Your task to perform on an android device: Open ESPN.com Image 0: 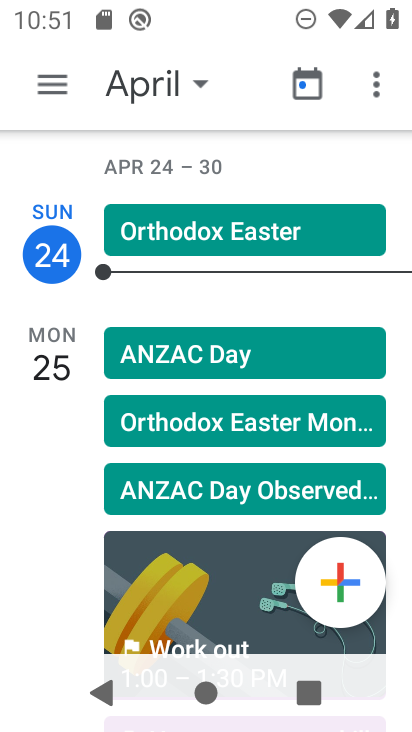
Step 0: press home button
Your task to perform on an android device: Open ESPN.com Image 1: 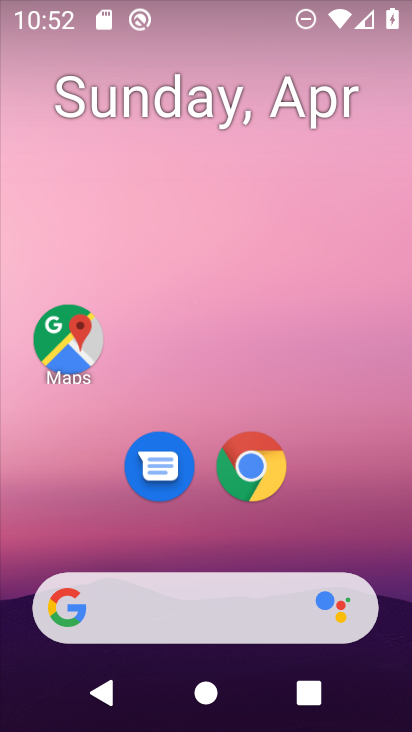
Step 1: drag from (353, 496) to (372, 80)
Your task to perform on an android device: Open ESPN.com Image 2: 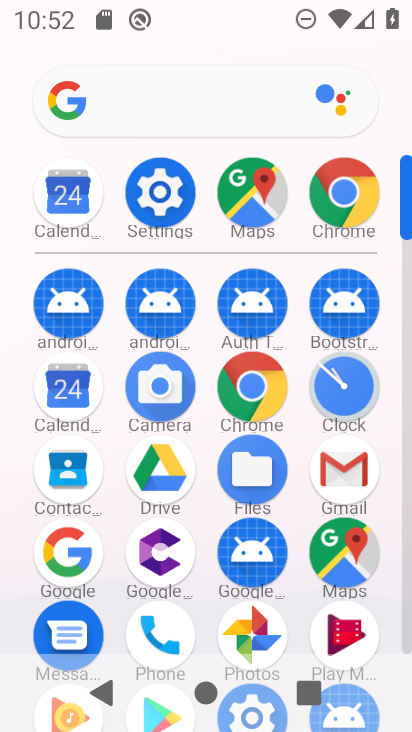
Step 2: click (350, 211)
Your task to perform on an android device: Open ESPN.com Image 3: 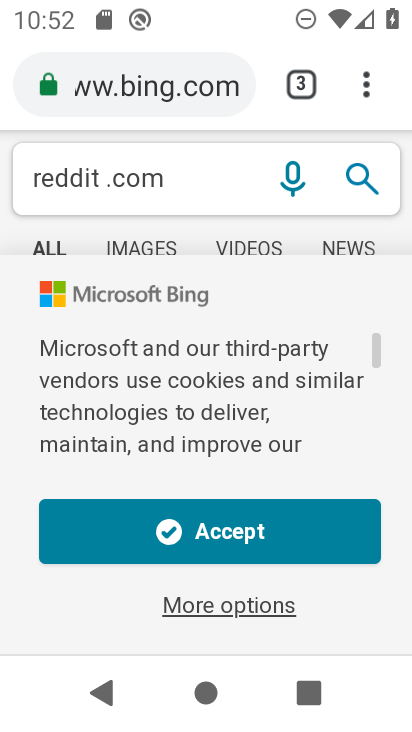
Step 3: click (206, 86)
Your task to perform on an android device: Open ESPN.com Image 4: 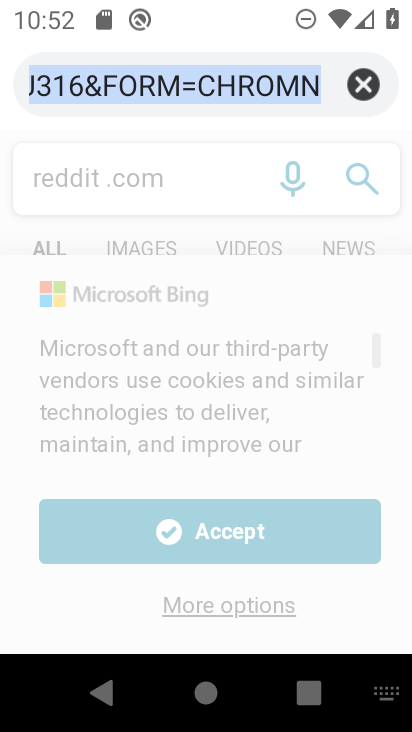
Step 4: click (362, 79)
Your task to perform on an android device: Open ESPN.com Image 5: 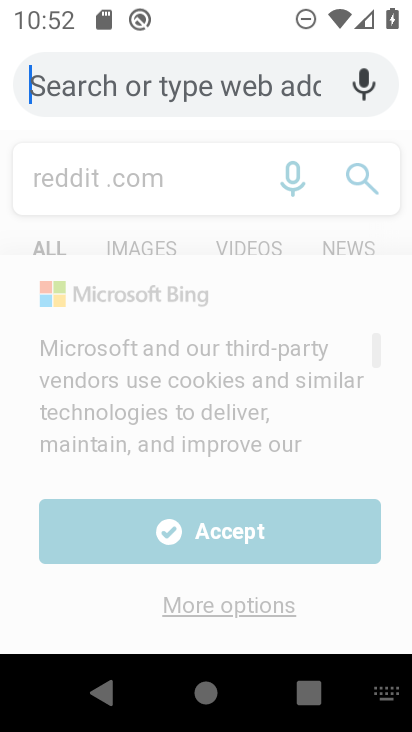
Step 5: click (239, 85)
Your task to perform on an android device: Open ESPN.com Image 6: 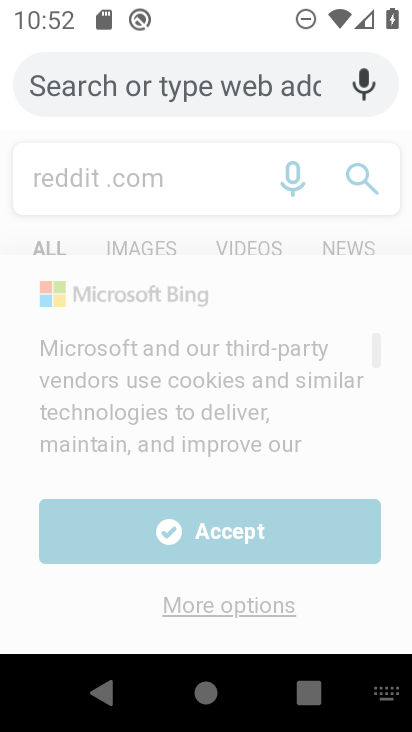
Step 6: type "espn.com"
Your task to perform on an android device: Open ESPN.com Image 7: 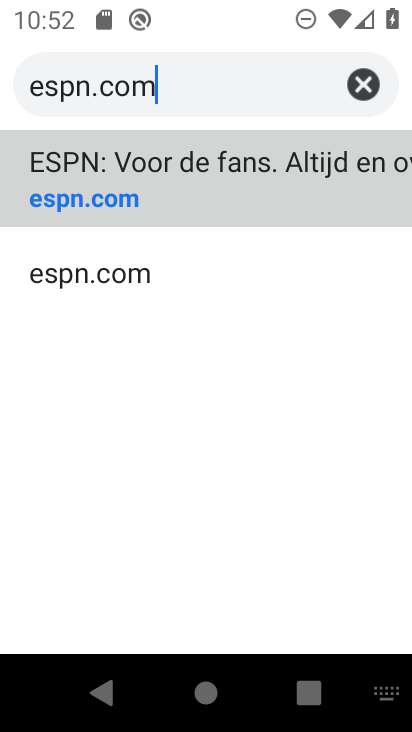
Step 7: click (249, 190)
Your task to perform on an android device: Open ESPN.com Image 8: 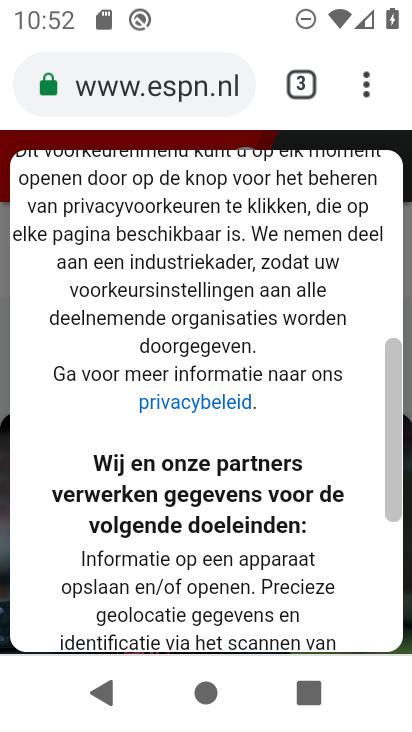
Step 8: task complete